Your task to perform on an android device: turn off data saver in the chrome app Image 0: 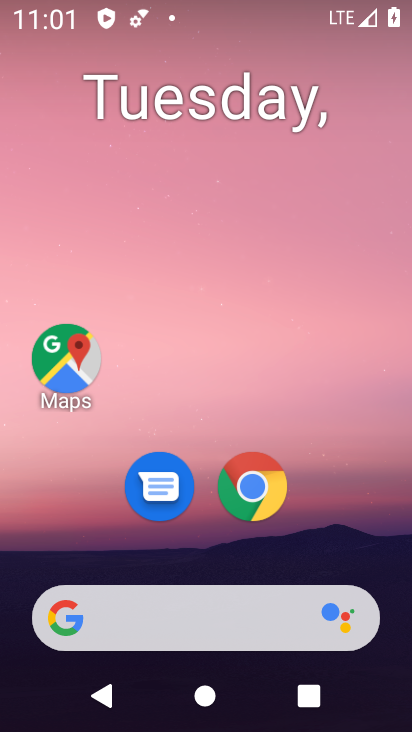
Step 0: drag from (363, 546) to (382, 113)
Your task to perform on an android device: turn off data saver in the chrome app Image 1: 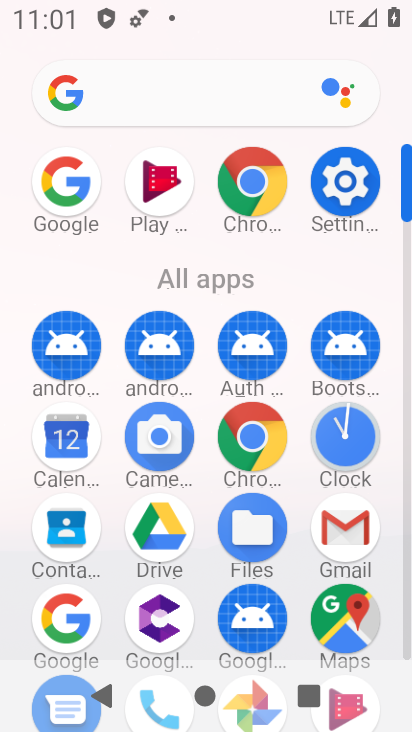
Step 1: click (263, 434)
Your task to perform on an android device: turn off data saver in the chrome app Image 2: 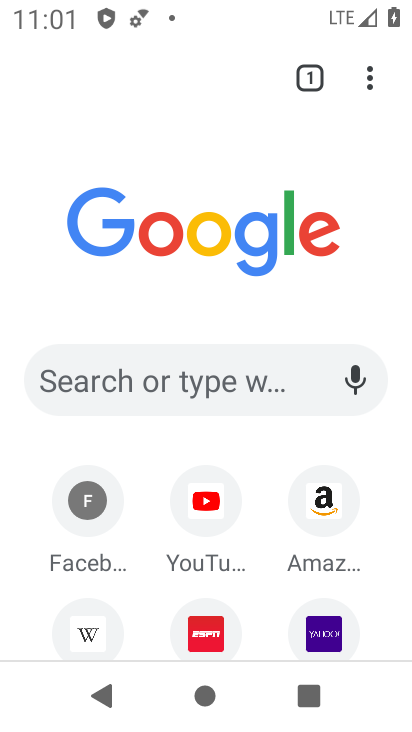
Step 2: click (366, 87)
Your task to perform on an android device: turn off data saver in the chrome app Image 3: 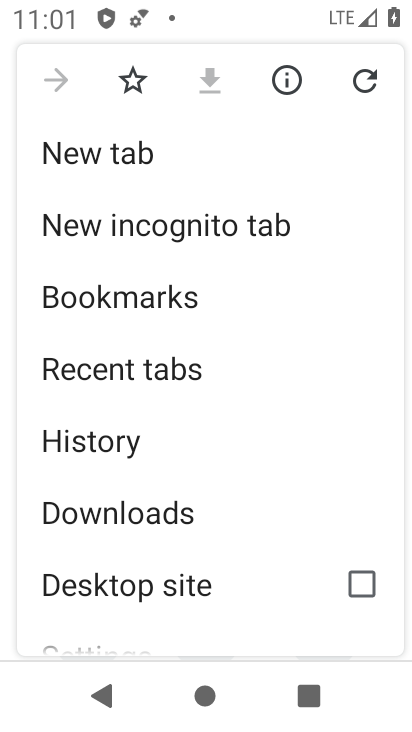
Step 3: drag from (299, 427) to (298, 281)
Your task to perform on an android device: turn off data saver in the chrome app Image 4: 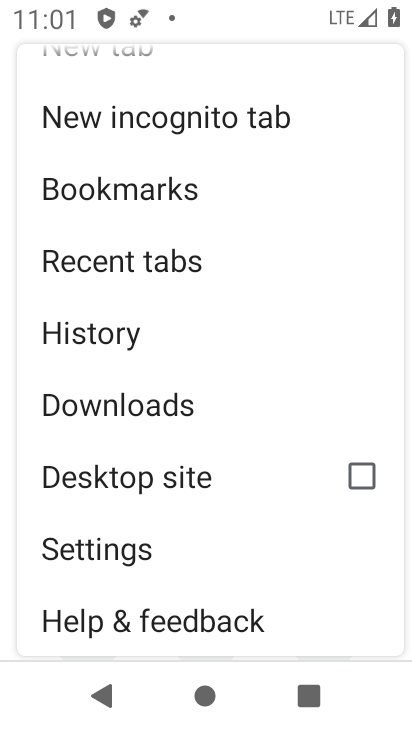
Step 4: drag from (301, 429) to (301, 294)
Your task to perform on an android device: turn off data saver in the chrome app Image 5: 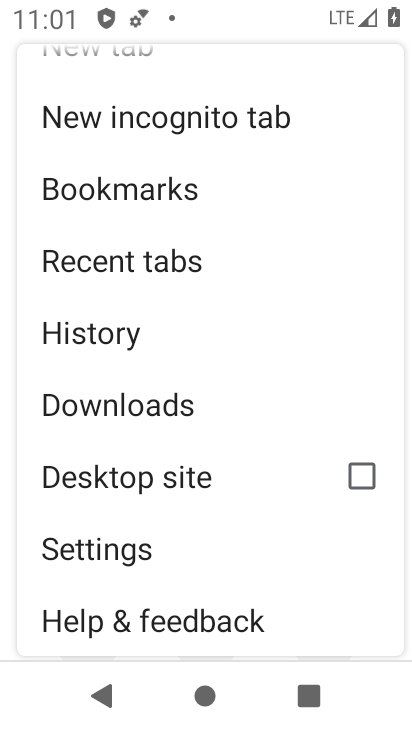
Step 5: click (175, 548)
Your task to perform on an android device: turn off data saver in the chrome app Image 6: 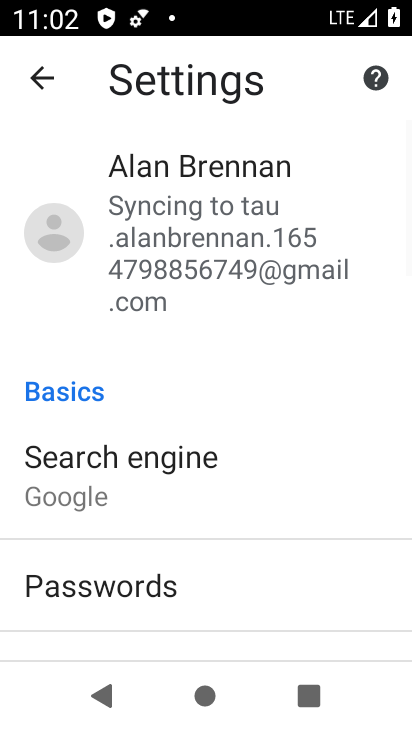
Step 6: drag from (311, 542) to (325, 418)
Your task to perform on an android device: turn off data saver in the chrome app Image 7: 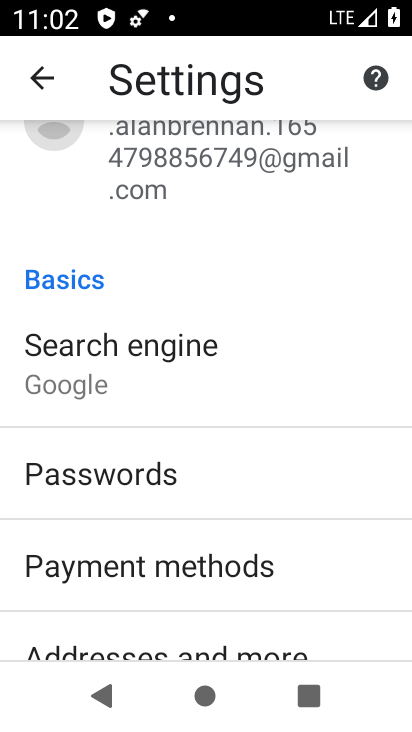
Step 7: drag from (339, 523) to (339, 420)
Your task to perform on an android device: turn off data saver in the chrome app Image 8: 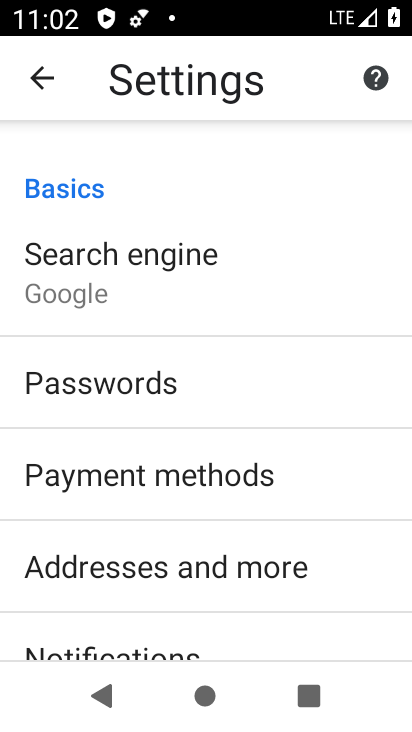
Step 8: drag from (353, 547) to (352, 440)
Your task to perform on an android device: turn off data saver in the chrome app Image 9: 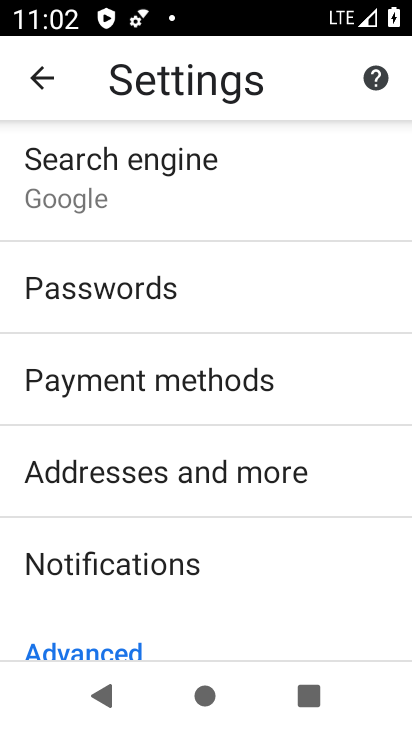
Step 9: drag from (336, 527) to (335, 410)
Your task to perform on an android device: turn off data saver in the chrome app Image 10: 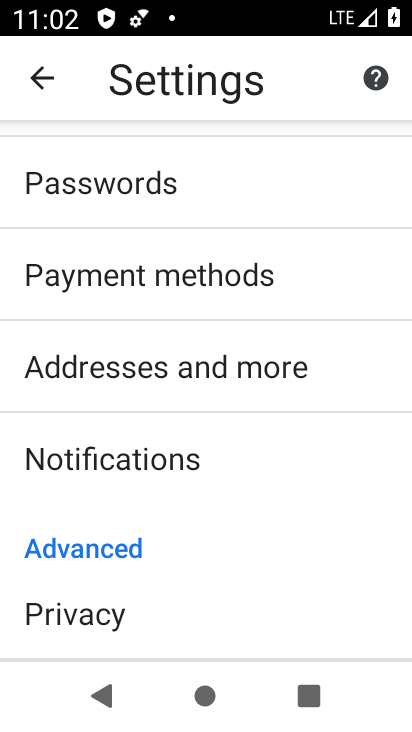
Step 10: drag from (329, 481) to (330, 359)
Your task to perform on an android device: turn off data saver in the chrome app Image 11: 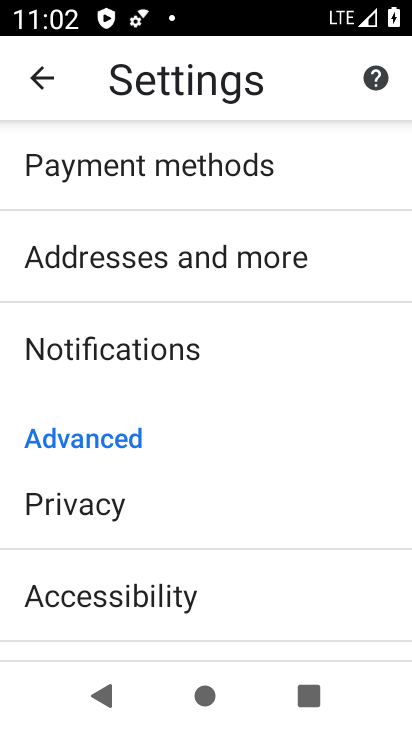
Step 11: drag from (327, 478) to (326, 341)
Your task to perform on an android device: turn off data saver in the chrome app Image 12: 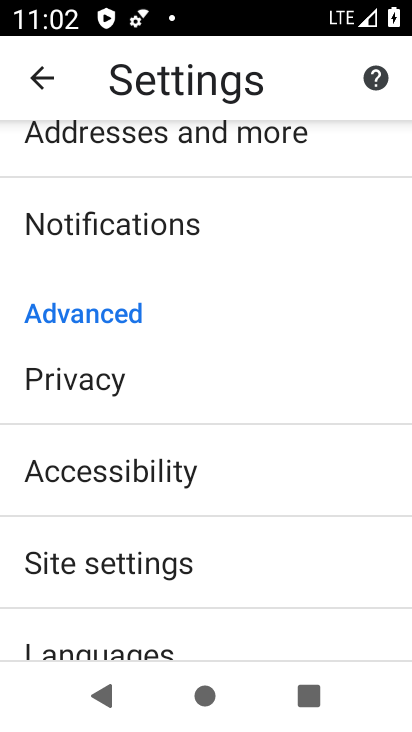
Step 12: drag from (326, 492) to (333, 321)
Your task to perform on an android device: turn off data saver in the chrome app Image 13: 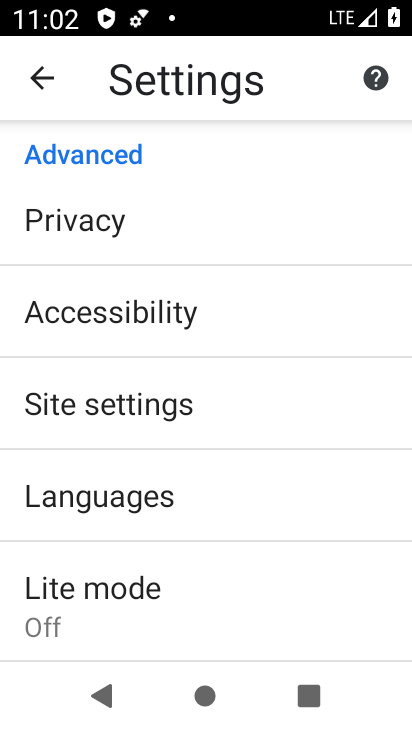
Step 13: drag from (325, 542) to (325, 368)
Your task to perform on an android device: turn off data saver in the chrome app Image 14: 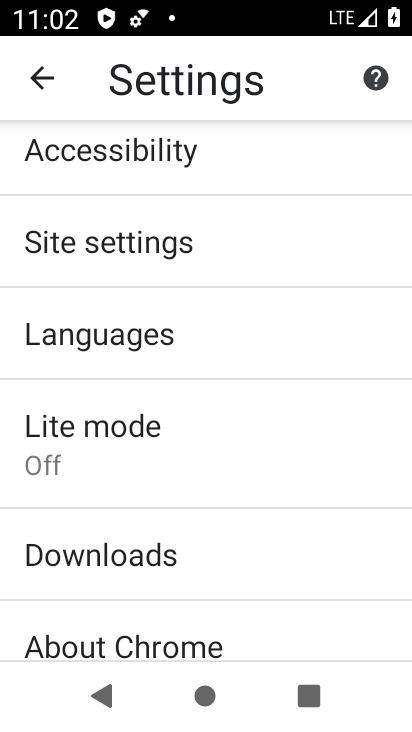
Step 14: click (306, 461)
Your task to perform on an android device: turn off data saver in the chrome app Image 15: 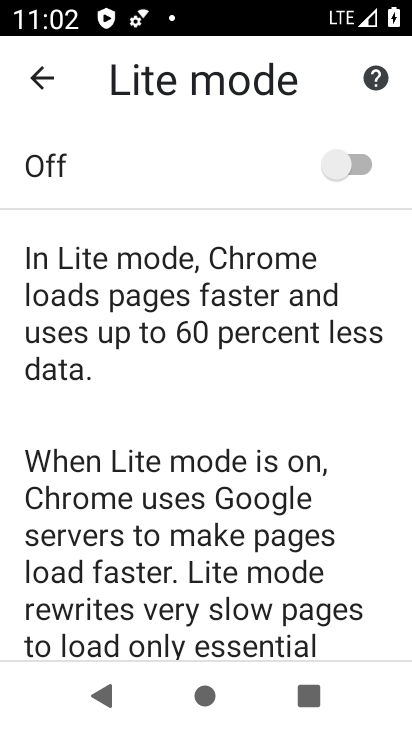
Step 15: task complete